Your task to perform on an android device: check out phone information Image 0: 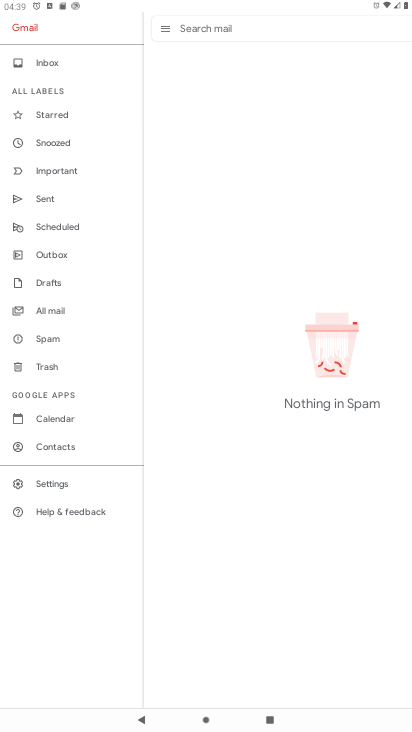
Step 0: press home button
Your task to perform on an android device: check out phone information Image 1: 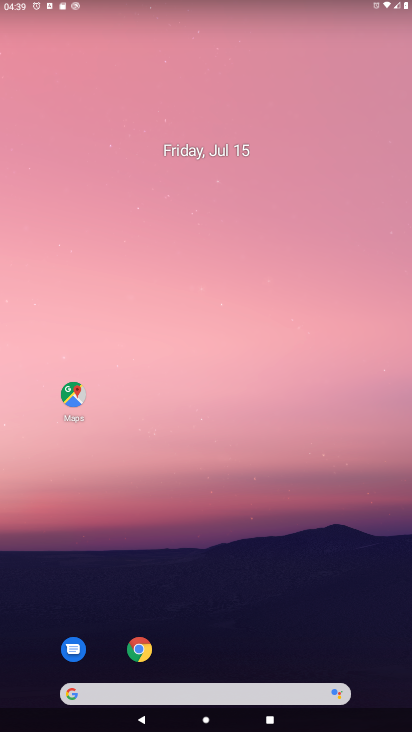
Step 1: drag from (383, 669) to (327, 130)
Your task to perform on an android device: check out phone information Image 2: 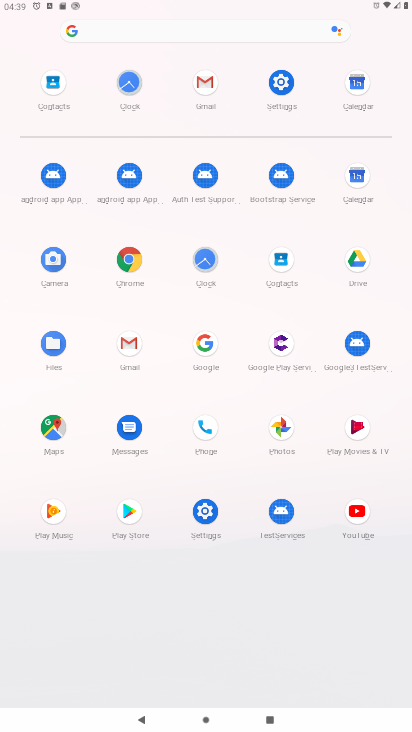
Step 2: click (204, 514)
Your task to perform on an android device: check out phone information Image 3: 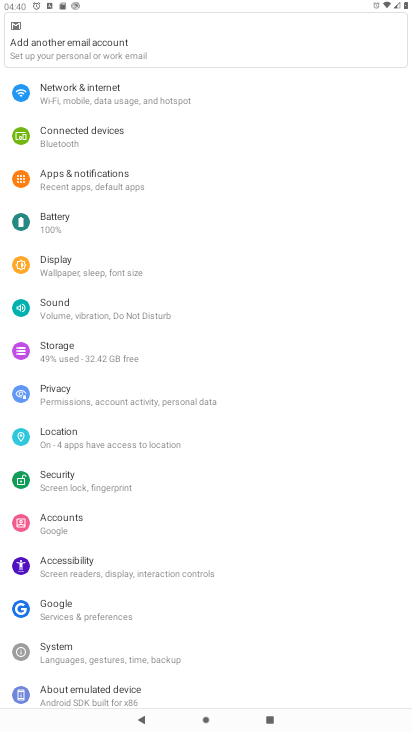
Step 3: drag from (220, 651) to (224, 400)
Your task to perform on an android device: check out phone information Image 4: 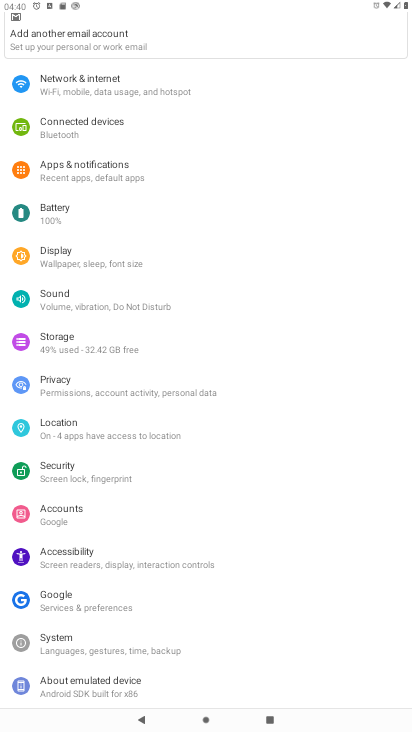
Step 4: click (83, 676)
Your task to perform on an android device: check out phone information Image 5: 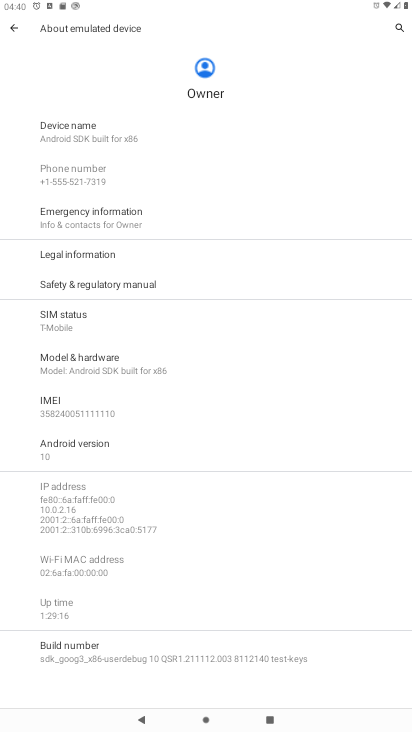
Step 5: task complete